Your task to perform on an android device: When is my next meeting? Image 0: 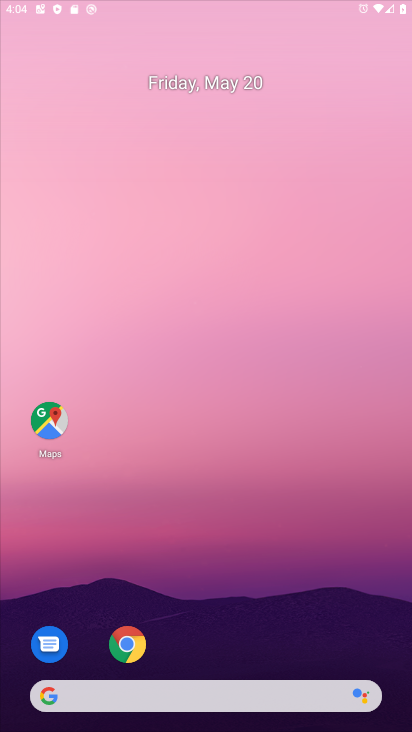
Step 0: drag from (308, 614) to (329, 142)
Your task to perform on an android device: When is my next meeting? Image 1: 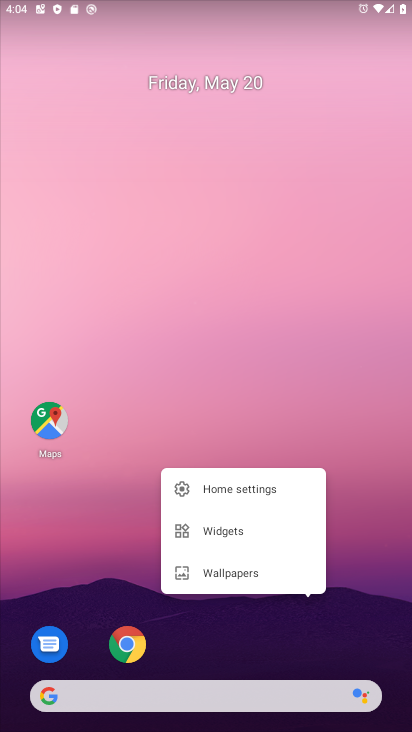
Step 1: click (329, 140)
Your task to perform on an android device: When is my next meeting? Image 2: 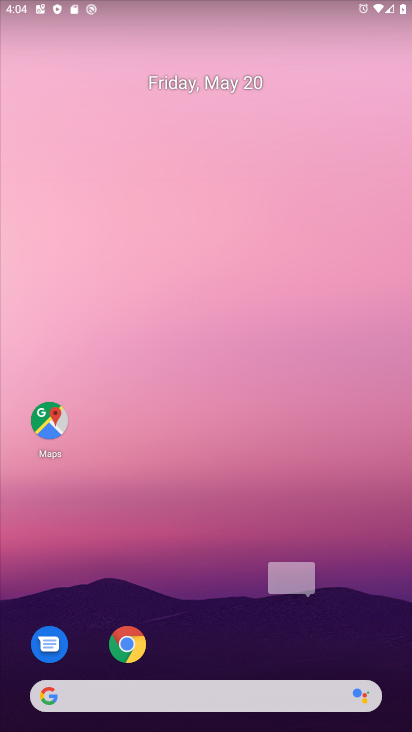
Step 2: click (329, 140)
Your task to perform on an android device: When is my next meeting? Image 3: 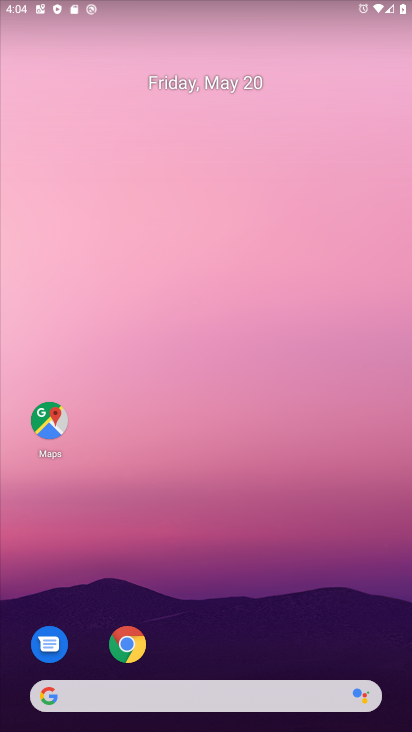
Step 3: drag from (278, 639) to (271, 4)
Your task to perform on an android device: When is my next meeting? Image 4: 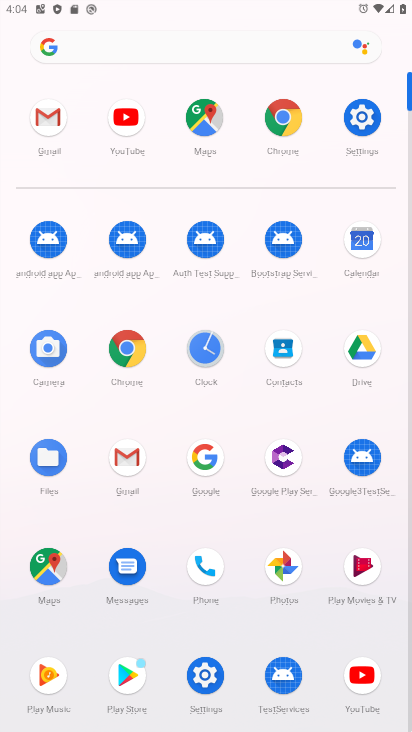
Step 4: click (345, 269)
Your task to perform on an android device: When is my next meeting? Image 5: 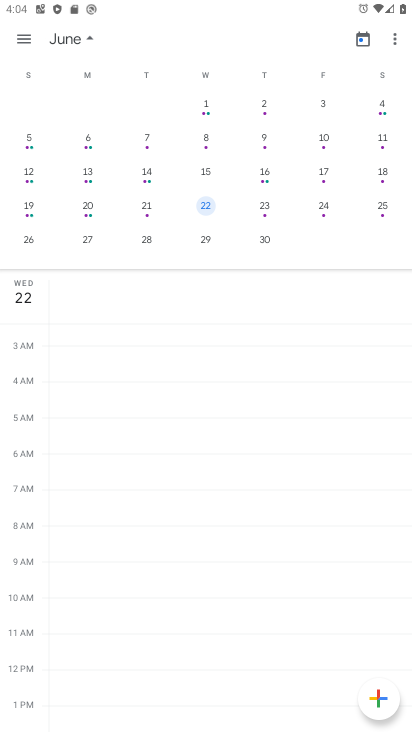
Step 5: task complete